Your task to perform on an android device: change alarm snooze length Image 0: 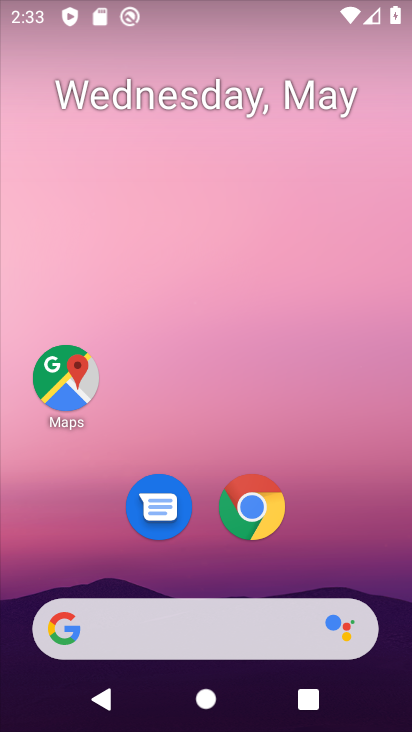
Step 0: drag from (232, 549) to (239, 87)
Your task to perform on an android device: change alarm snooze length Image 1: 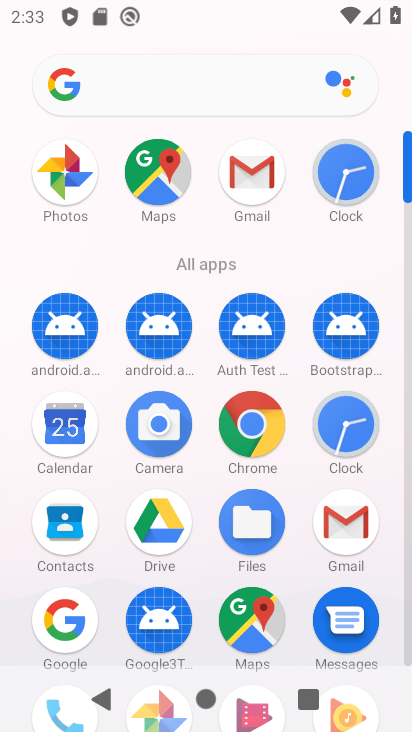
Step 1: drag from (206, 582) to (222, 176)
Your task to perform on an android device: change alarm snooze length Image 2: 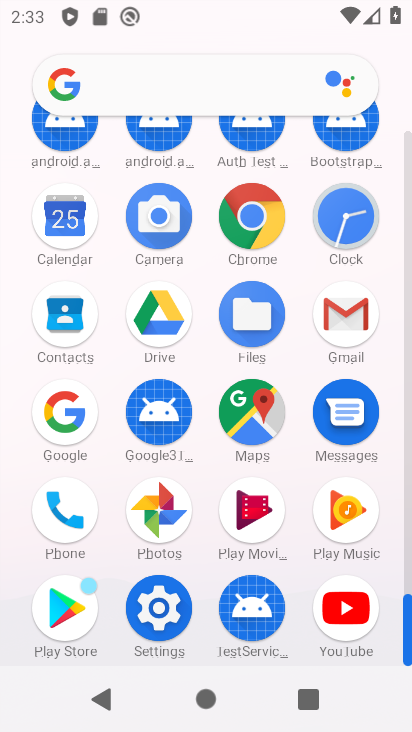
Step 2: drag from (204, 244) to (218, 411)
Your task to perform on an android device: change alarm snooze length Image 3: 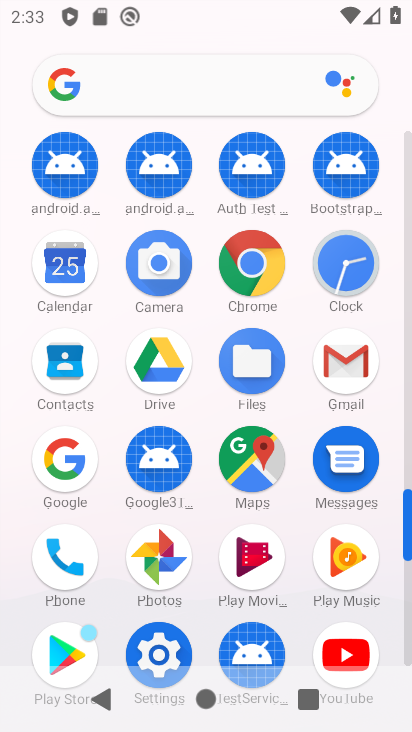
Step 3: click (351, 259)
Your task to perform on an android device: change alarm snooze length Image 4: 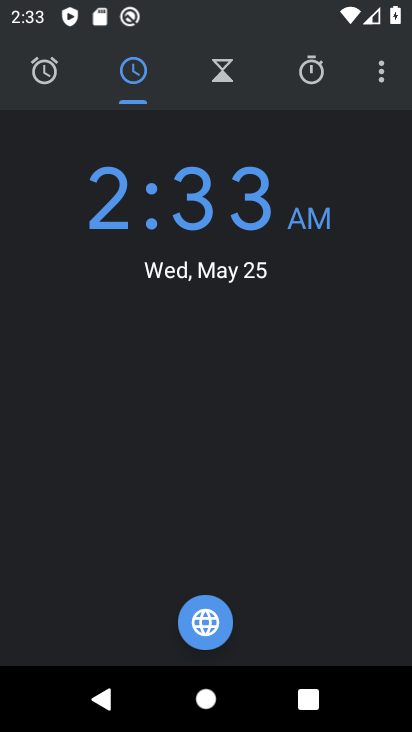
Step 4: click (373, 69)
Your task to perform on an android device: change alarm snooze length Image 5: 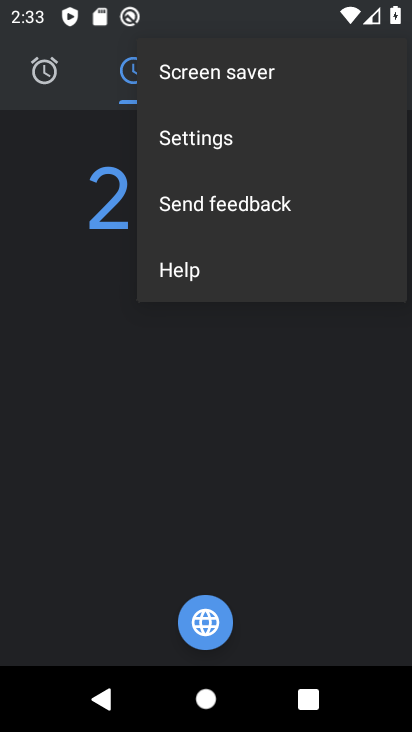
Step 5: click (227, 147)
Your task to perform on an android device: change alarm snooze length Image 6: 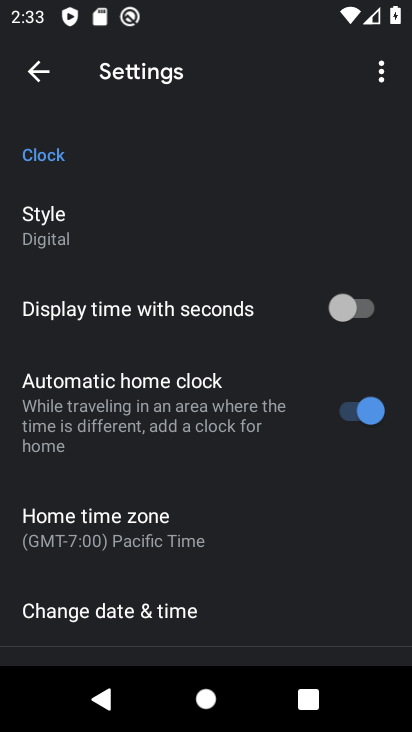
Step 6: drag from (175, 557) to (188, 281)
Your task to perform on an android device: change alarm snooze length Image 7: 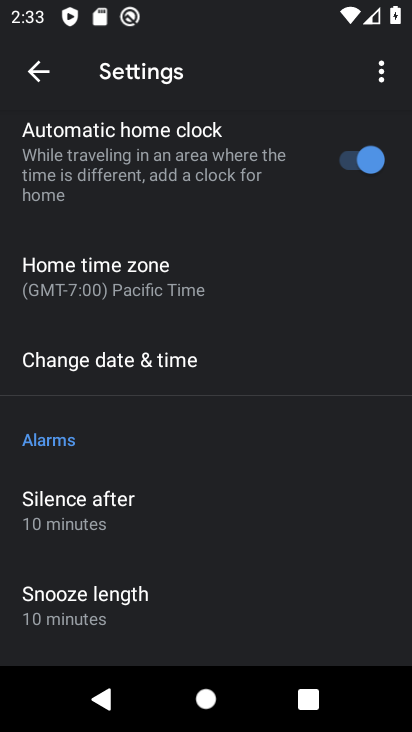
Step 7: drag from (199, 500) to (205, 263)
Your task to perform on an android device: change alarm snooze length Image 8: 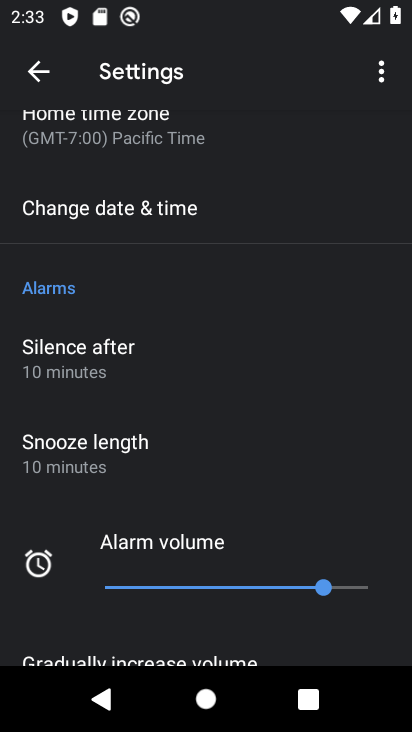
Step 8: click (123, 441)
Your task to perform on an android device: change alarm snooze length Image 9: 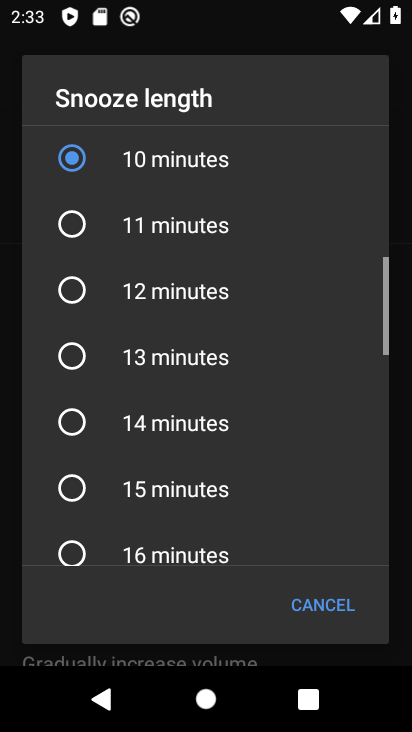
Step 9: click (80, 414)
Your task to perform on an android device: change alarm snooze length Image 10: 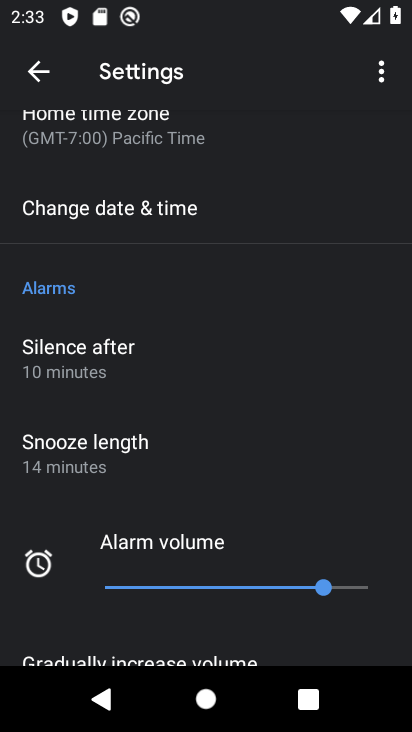
Step 10: task complete